Your task to perform on an android device: Open the web browser Image 0: 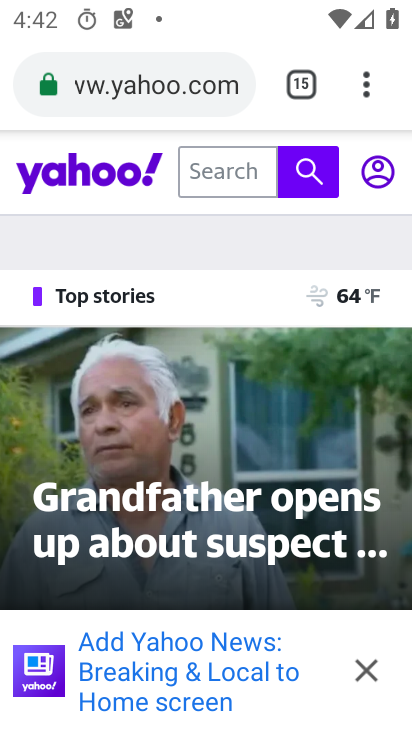
Step 0: task complete